Your task to perform on an android device: Set the phone to "Do not disturb". Image 0: 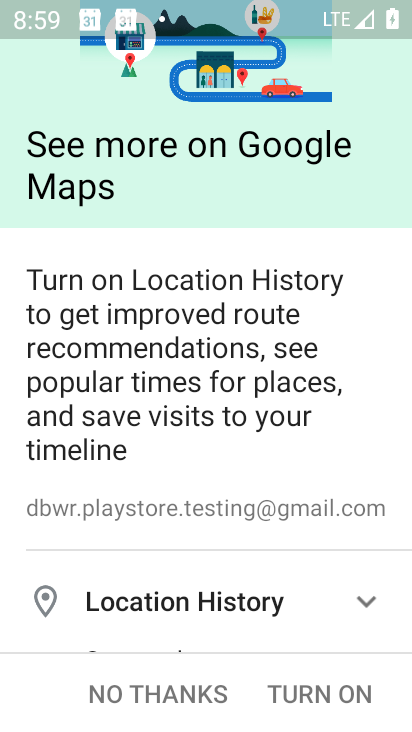
Step 0: drag from (227, 15) to (189, 694)
Your task to perform on an android device: Set the phone to "Do not disturb". Image 1: 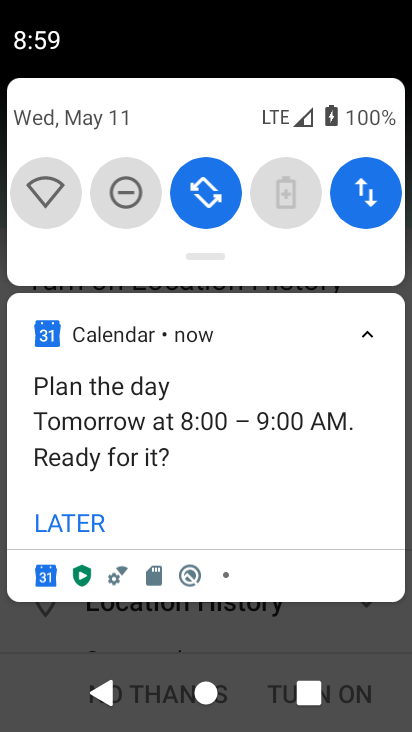
Step 1: click (105, 197)
Your task to perform on an android device: Set the phone to "Do not disturb". Image 2: 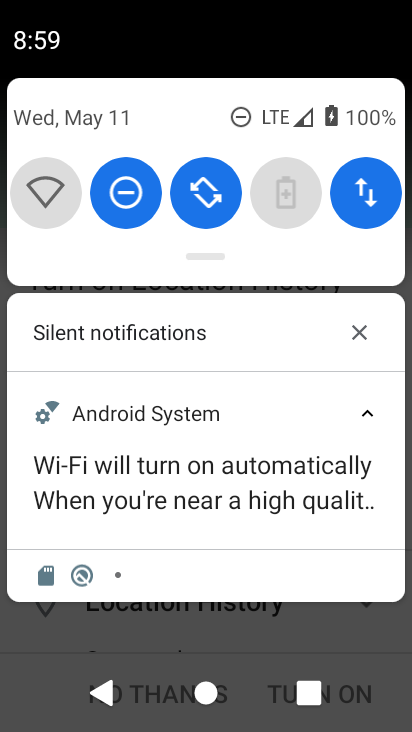
Step 2: task complete